Your task to perform on an android device: Show me popular games on the Play Store Image 0: 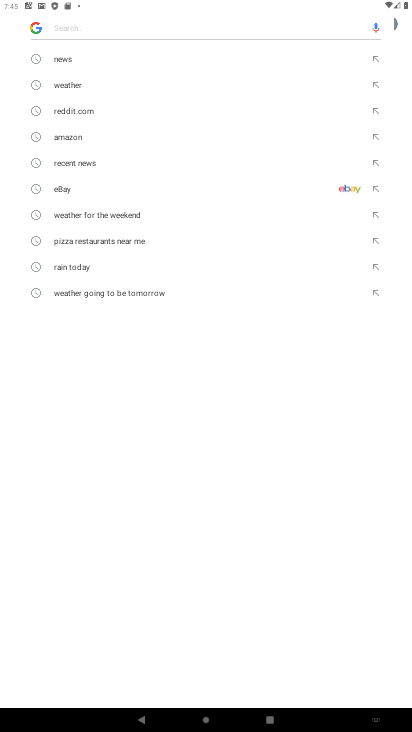
Step 0: press home button
Your task to perform on an android device: Show me popular games on the Play Store Image 1: 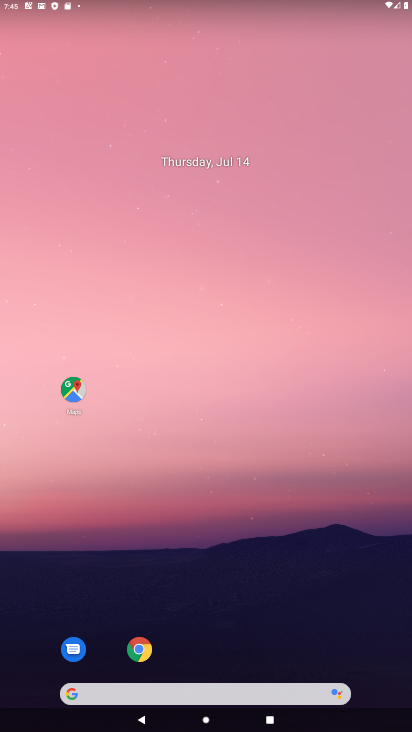
Step 1: drag from (214, 662) to (252, 85)
Your task to perform on an android device: Show me popular games on the Play Store Image 2: 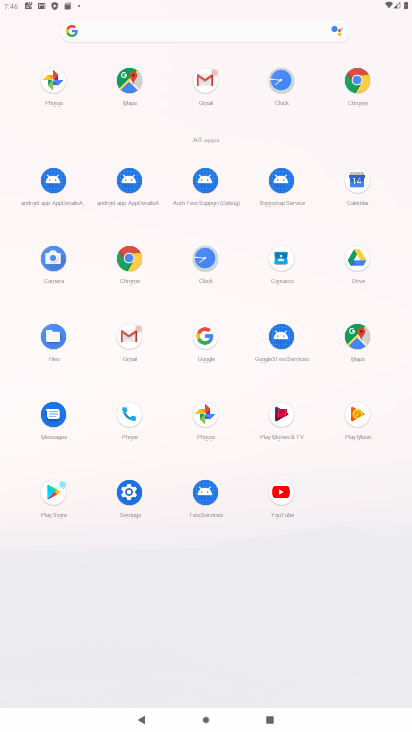
Step 2: click (52, 492)
Your task to perform on an android device: Show me popular games on the Play Store Image 3: 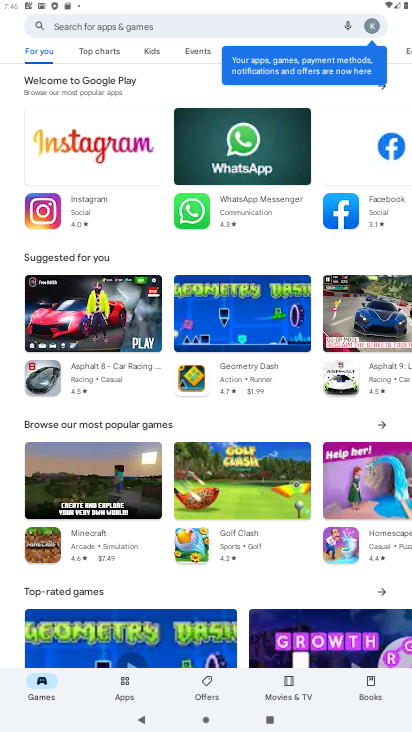
Step 3: click (379, 424)
Your task to perform on an android device: Show me popular games on the Play Store Image 4: 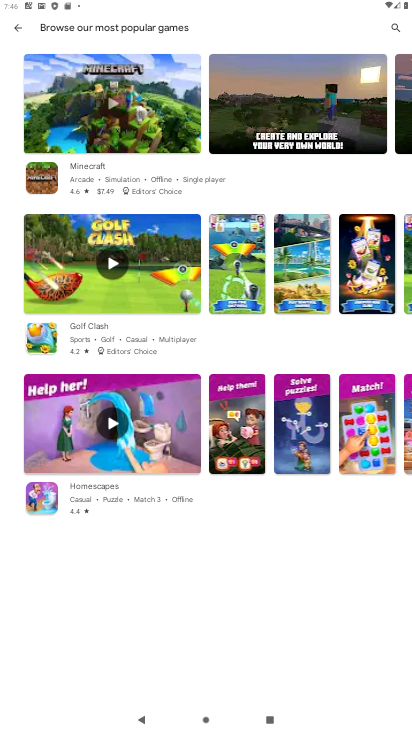
Step 4: task complete